Your task to perform on an android device: Do I have any events tomorrow? Image 0: 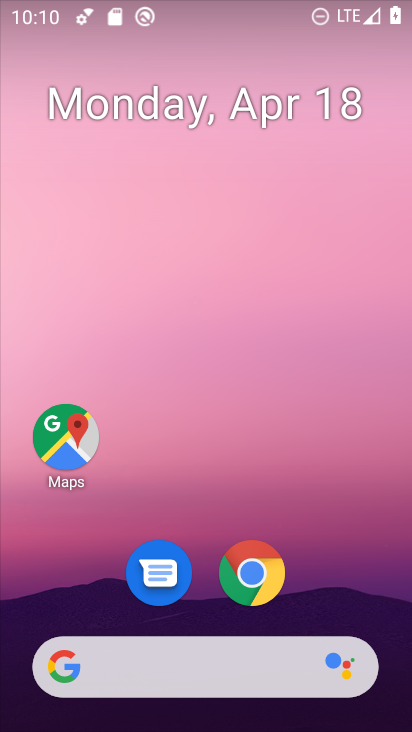
Step 0: drag from (360, 597) to (276, 19)
Your task to perform on an android device: Do I have any events tomorrow? Image 1: 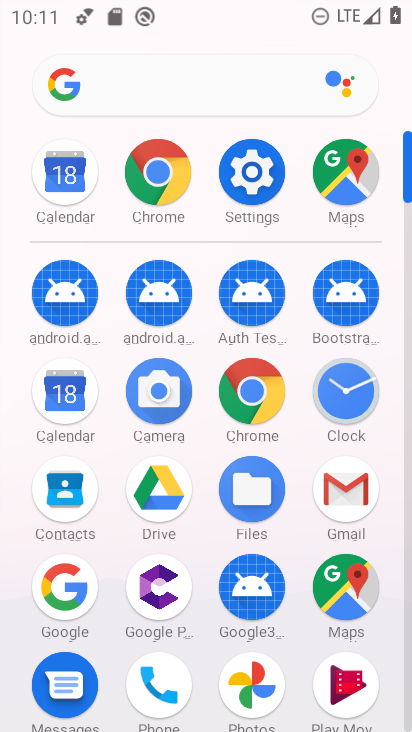
Step 1: click (65, 399)
Your task to perform on an android device: Do I have any events tomorrow? Image 2: 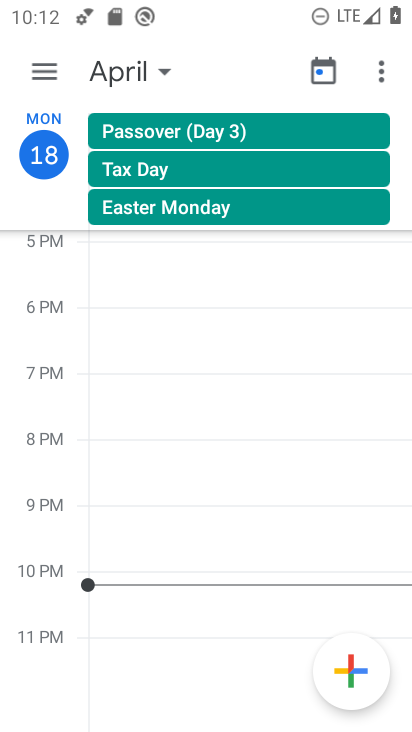
Step 2: click (105, 66)
Your task to perform on an android device: Do I have any events tomorrow? Image 3: 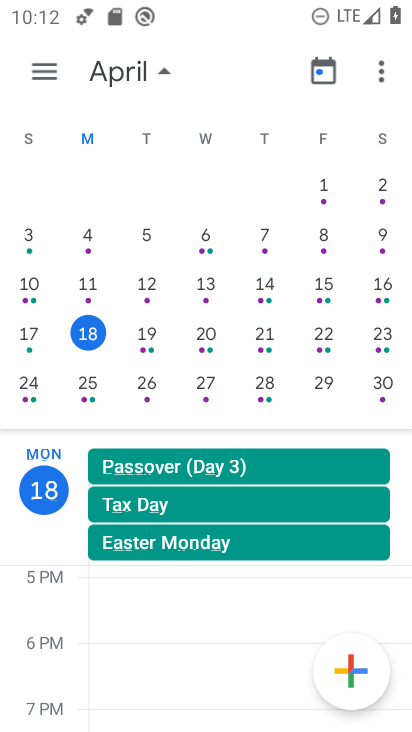
Step 3: click (151, 341)
Your task to perform on an android device: Do I have any events tomorrow? Image 4: 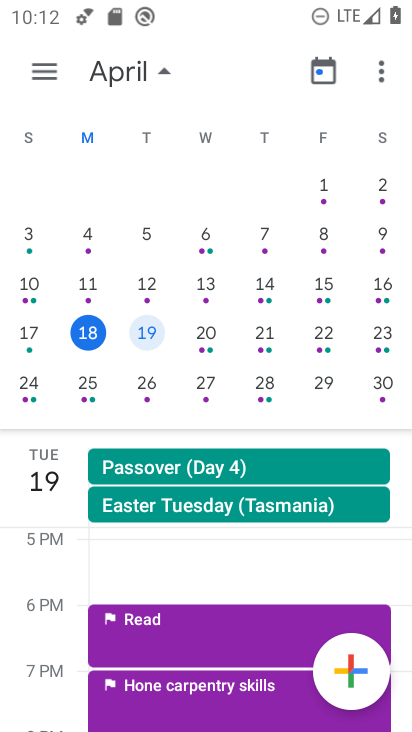
Step 4: click (53, 482)
Your task to perform on an android device: Do I have any events tomorrow? Image 5: 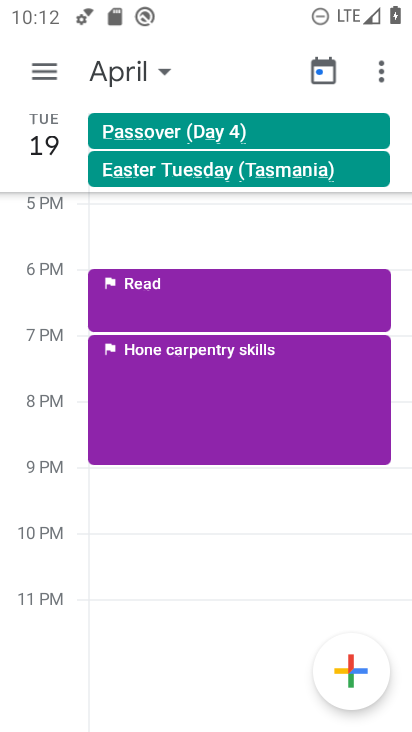
Step 5: task complete